Your task to perform on an android device: Show me recent news Image 0: 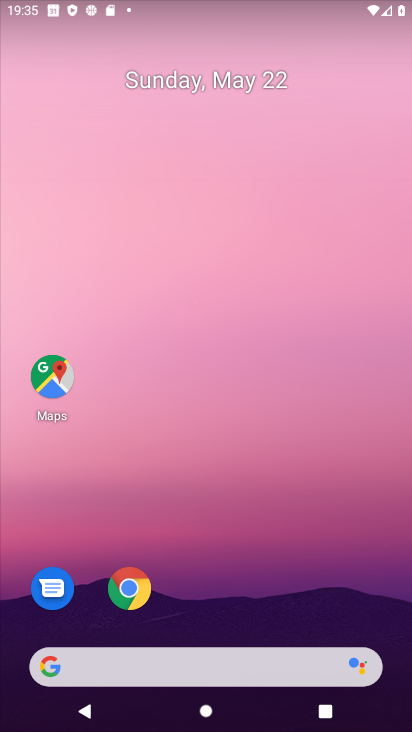
Step 0: drag from (7, 210) to (391, 215)
Your task to perform on an android device: Show me recent news Image 1: 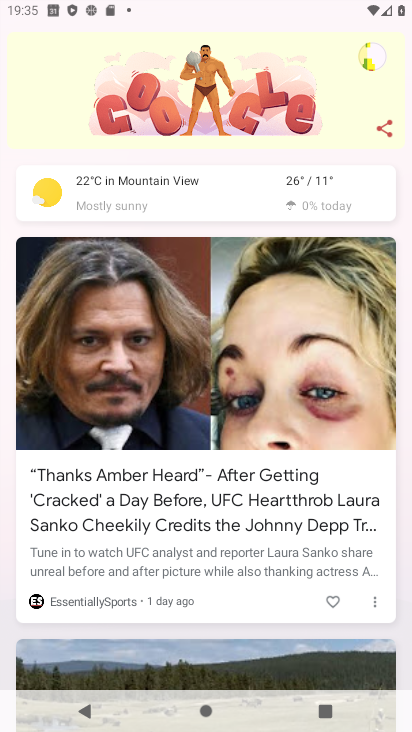
Step 1: task complete